Your task to perform on an android device: open the mobile data screen to see how much data has been used Image 0: 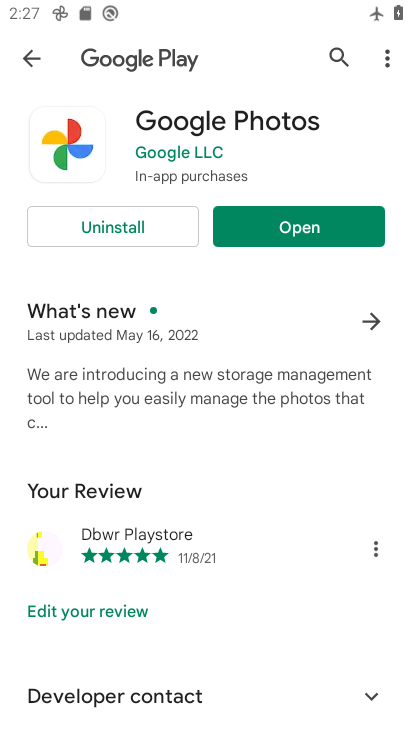
Step 0: press home button
Your task to perform on an android device: open the mobile data screen to see how much data has been used Image 1: 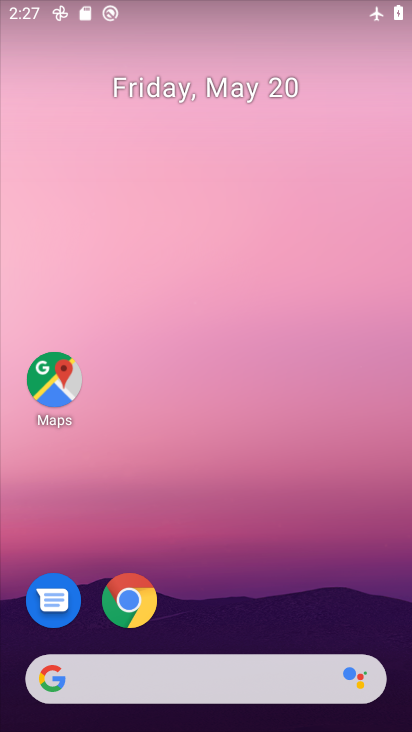
Step 1: drag from (287, 447) to (115, 8)
Your task to perform on an android device: open the mobile data screen to see how much data has been used Image 2: 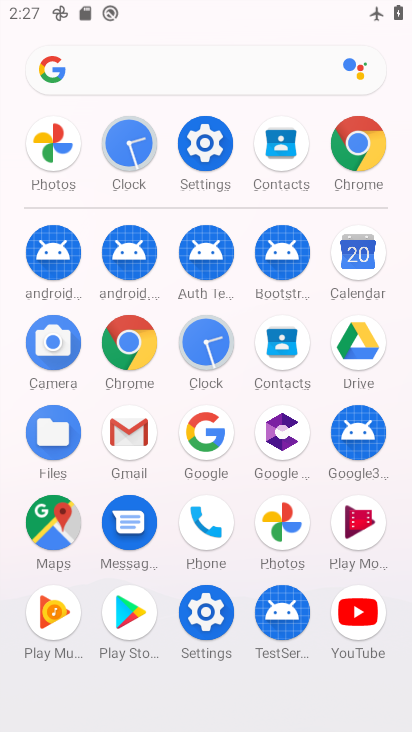
Step 2: click (201, 139)
Your task to perform on an android device: open the mobile data screen to see how much data has been used Image 3: 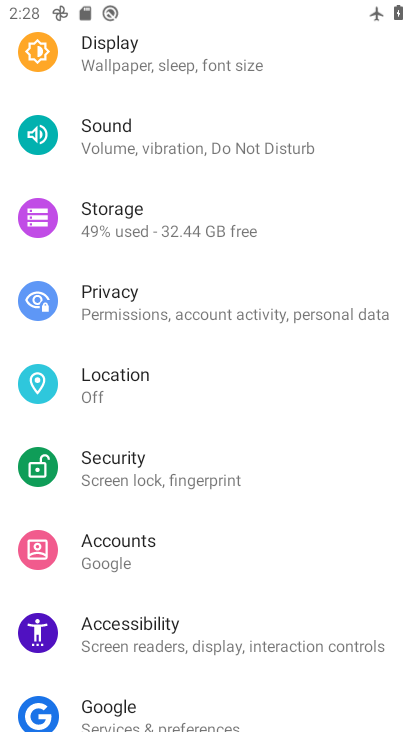
Step 3: drag from (227, 114) to (197, 610)
Your task to perform on an android device: open the mobile data screen to see how much data has been used Image 4: 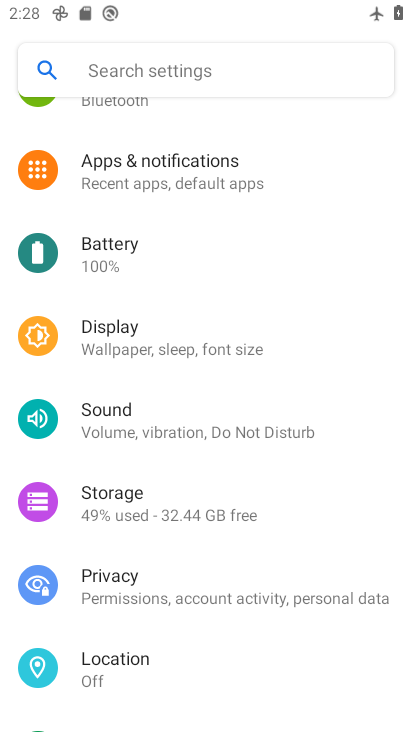
Step 4: drag from (245, 229) to (242, 629)
Your task to perform on an android device: open the mobile data screen to see how much data has been used Image 5: 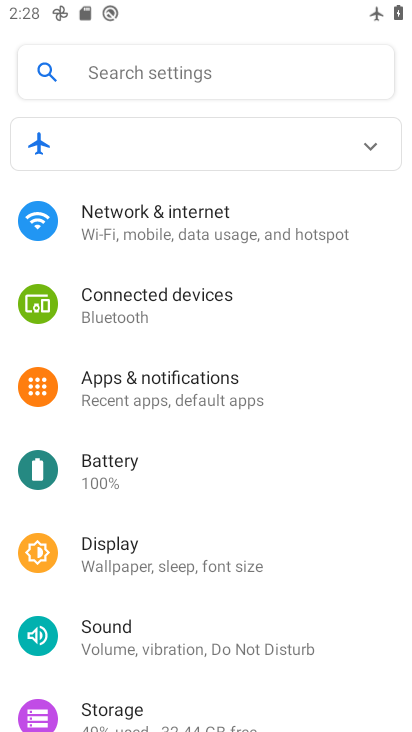
Step 5: click (207, 232)
Your task to perform on an android device: open the mobile data screen to see how much data has been used Image 6: 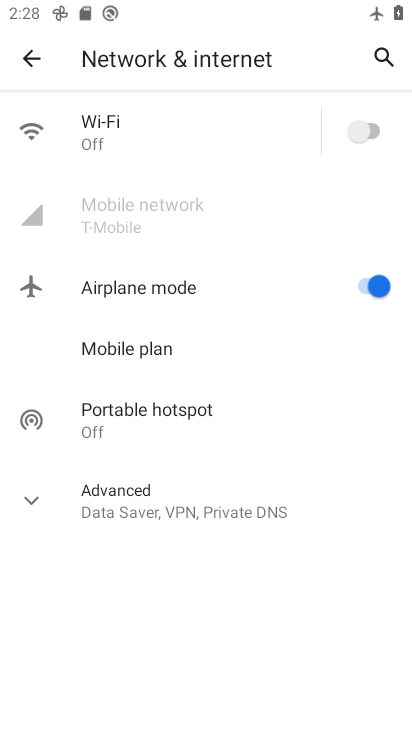
Step 6: click (217, 216)
Your task to perform on an android device: open the mobile data screen to see how much data has been used Image 7: 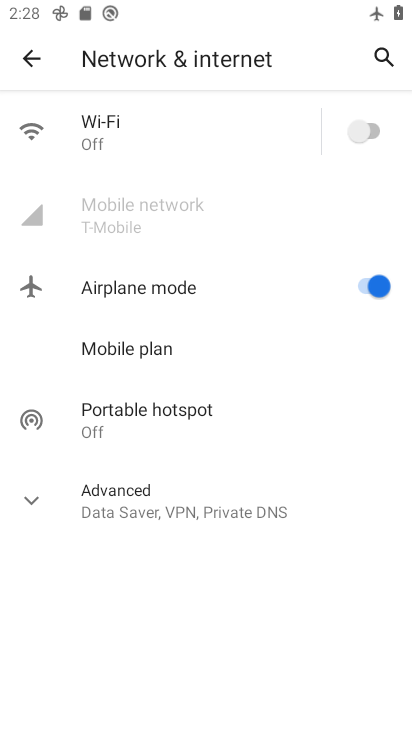
Step 7: task complete